Your task to perform on an android device: check the backup settings in the google photos Image 0: 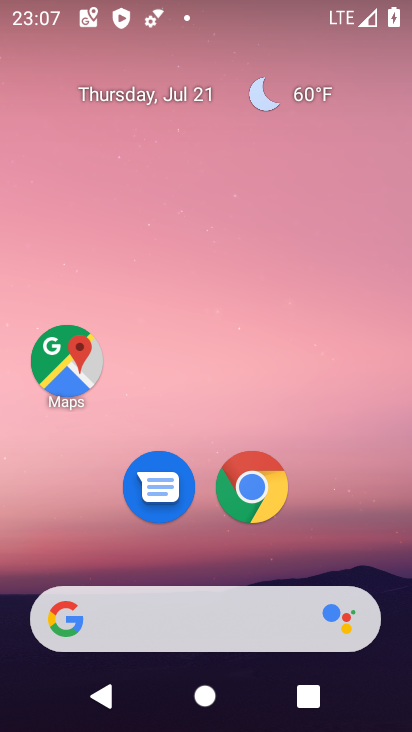
Step 0: drag from (169, 552) to (224, 6)
Your task to perform on an android device: check the backup settings in the google photos Image 1: 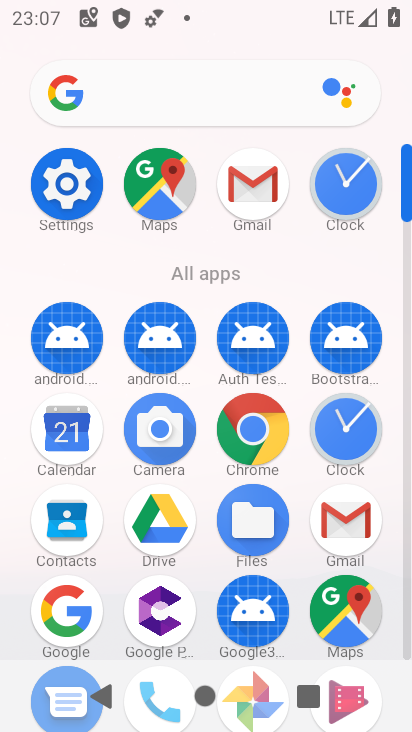
Step 1: drag from (202, 586) to (267, 170)
Your task to perform on an android device: check the backup settings in the google photos Image 2: 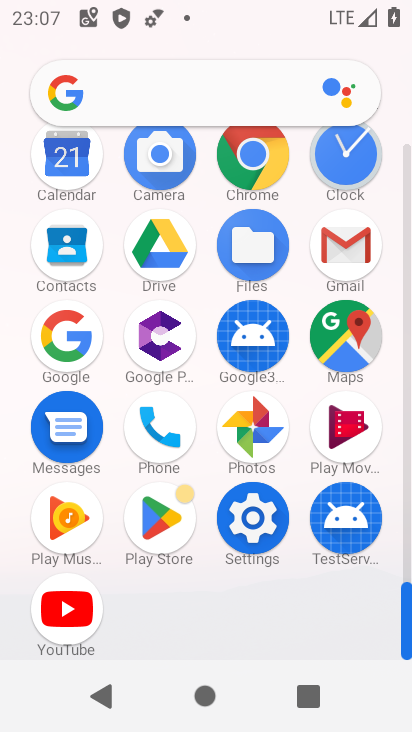
Step 2: click (252, 455)
Your task to perform on an android device: check the backup settings in the google photos Image 3: 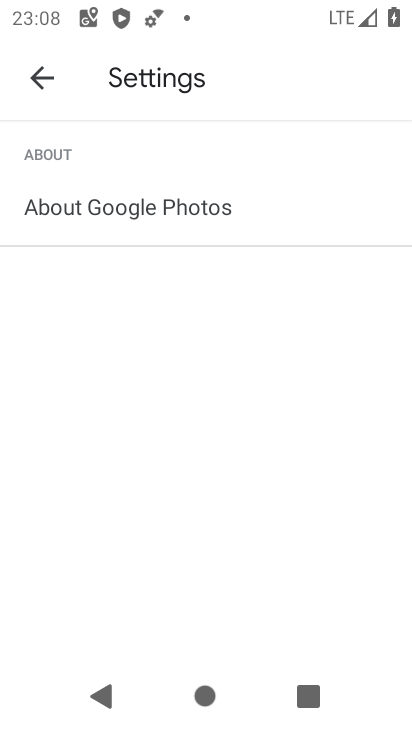
Step 3: click (33, 79)
Your task to perform on an android device: check the backup settings in the google photos Image 4: 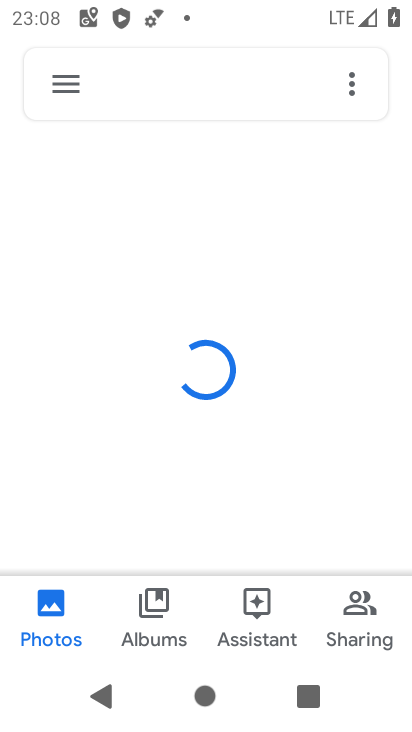
Step 4: click (68, 79)
Your task to perform on an android device: check the backup settings in the google photos Image 5: 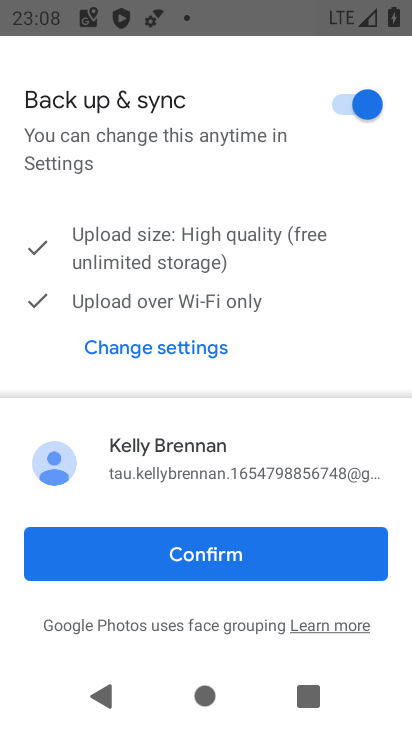
Step 5: click (172, 552)
Your task to perform on an android device: check the backup settings in the google photos Image 6: 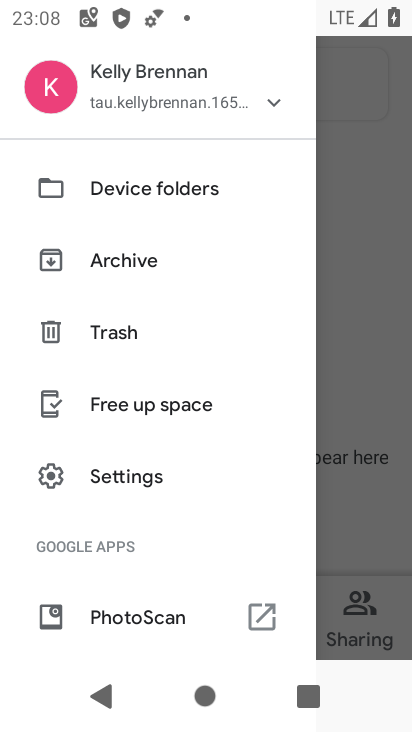
Step 6: click (136, 479)
Your task to perform on an android device: check the backup settings in the google photos Image 7: 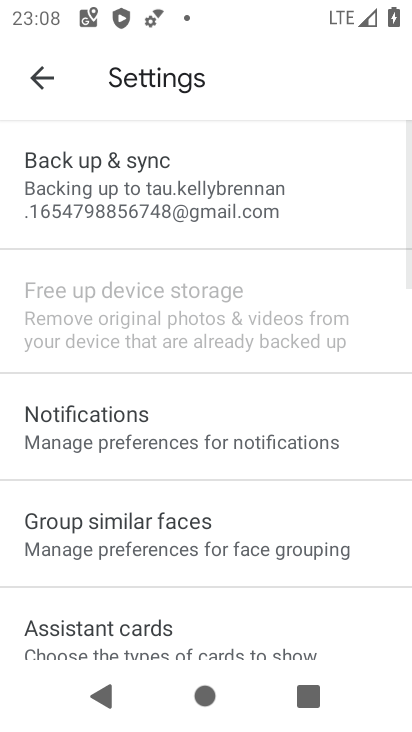
Step 7: click (130, 179)
Your task to perform on an android device: check the backup settings in the google photos Image 8: 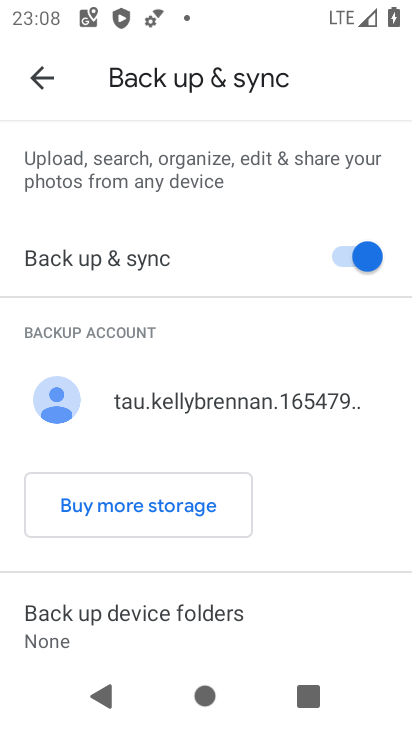
Step 8: task complete